Your task to perform on an android device: Open Android settings Image 0: 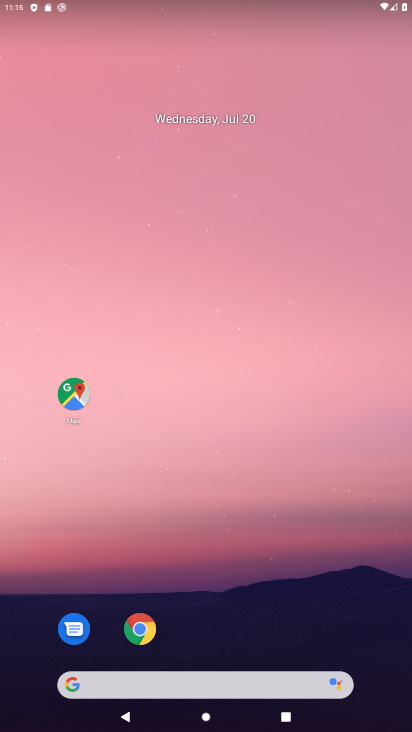
Step 0: drag from (231, 656) to (289, 2)
Your task to perform on an android device: Open Android settings Image 1: 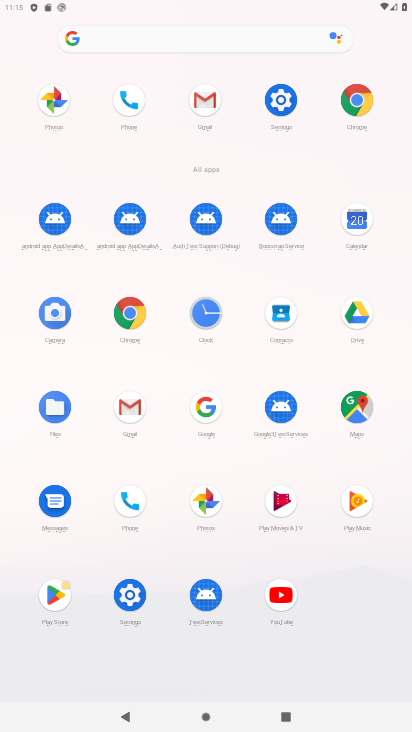
Step 1: click (280, 99)
Your task to perform on an android device: Open Android settings Image 2: 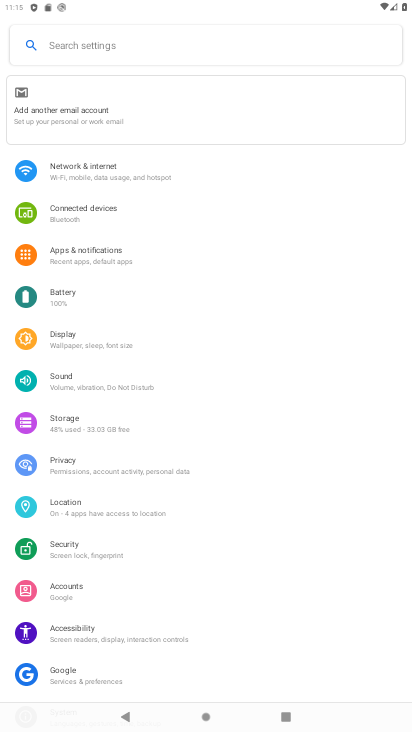
Step 2: drag from (203, 628) to (192, 186)
Your task to perform on an android device: Open Android settings Image 3: 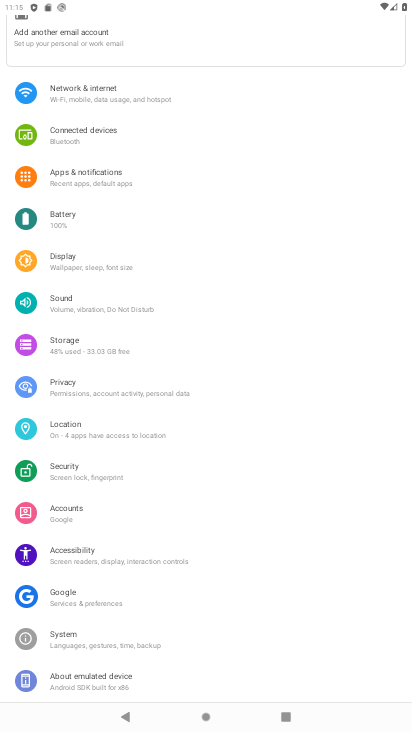
Step 3: click (168, 686)
Your task to perform on an android device: Open Android settings Image 4: 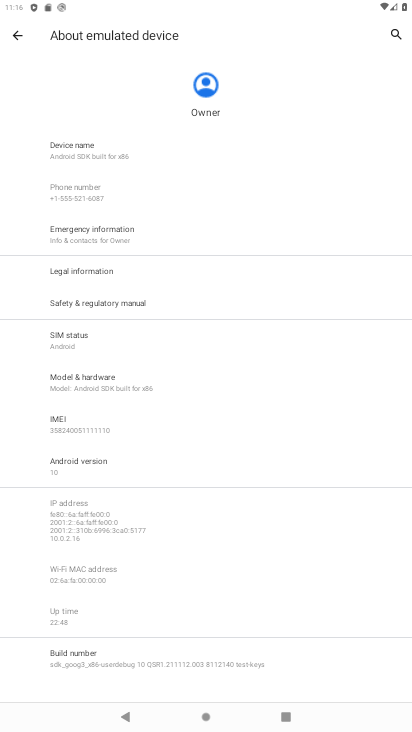
Step 4: click (82, 465)
Your task to perform on an android device: Open Android settings Image 5: 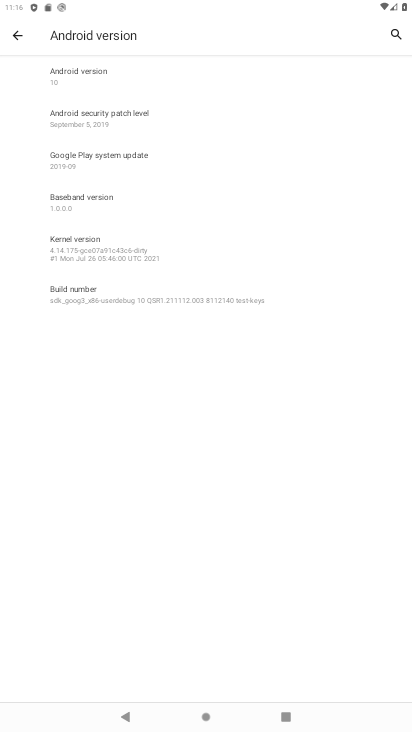
Step 5: task complete